Your task to perform on an android device: read, delete, or share a saved page in the chrome app Image 0: 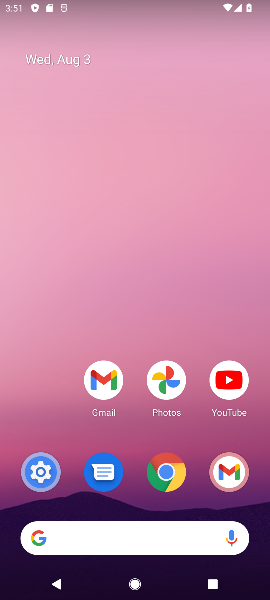
Step 0: drag from (195, 493) to (100, 30)
Your task to perform on an android device: read, delete, or share a saved page in the chrome app Image 1: 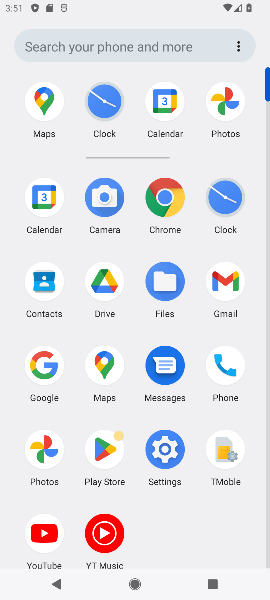
Step 1: click (150, 197)
Your task to perform on an android device: read, delete, or share a saved page in the chrome app Image 2: 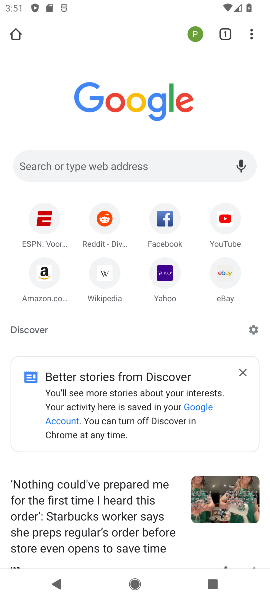
Step 2: task complete